Your task to perform on an android device: Show me recent news Image 0: 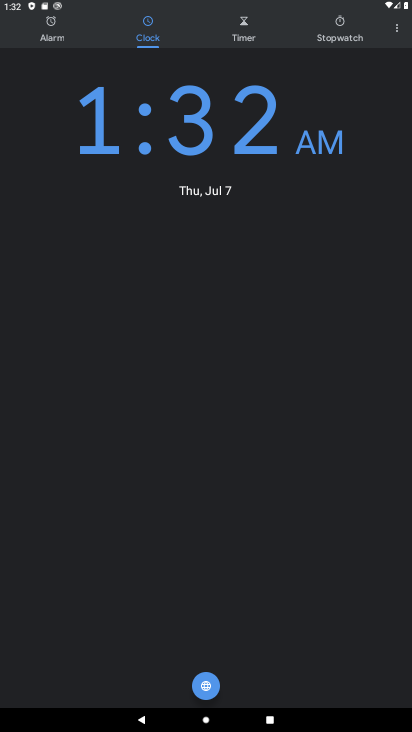
Step 0: press home button
Your task to perform on an android device: Show me recent news Image 1: 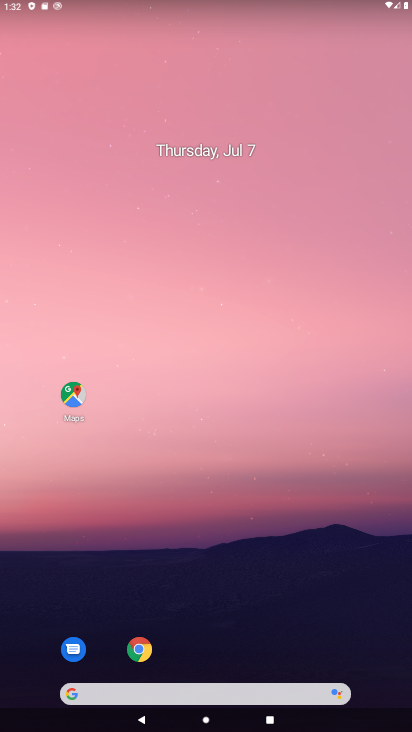
Step 1: task complete